Your task to perform on an android device: What's the weather today? Image 0: 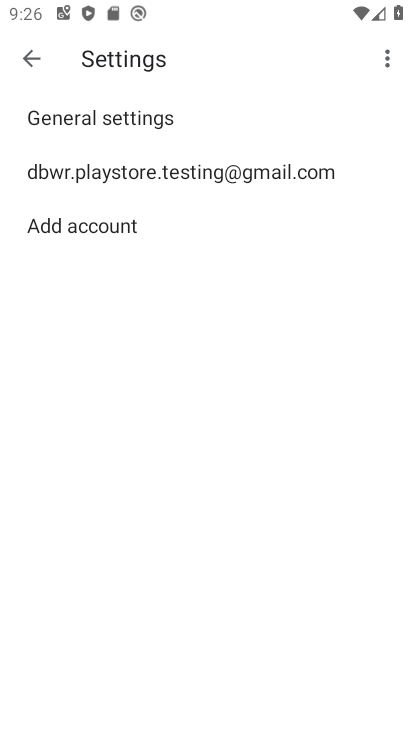
Step 0: press home button
Your task to perform on an android device: What's the weather today? Image 1: 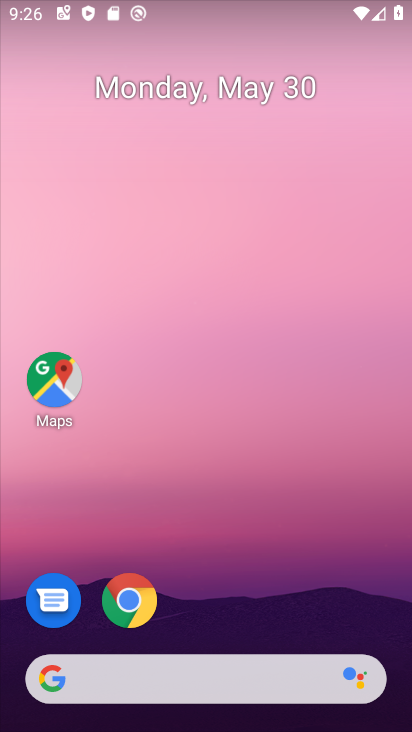
Step 1: click (56, 681)
Your task to perform on an android device: What's the weather today? Image 2: 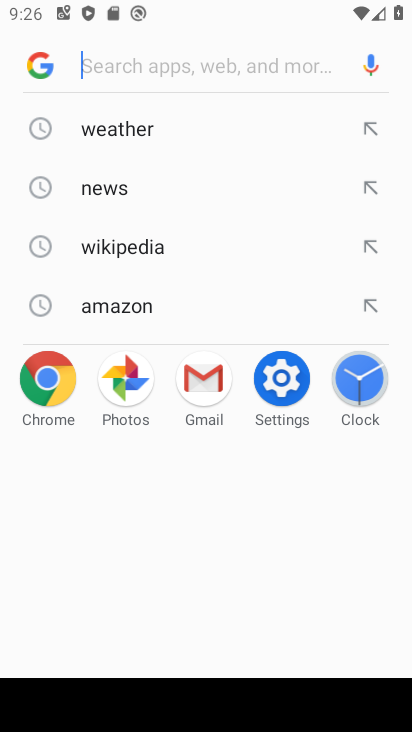
Step 2: type "weather today?"
Your task to perform on an android device: What's the weather today? Image 3: 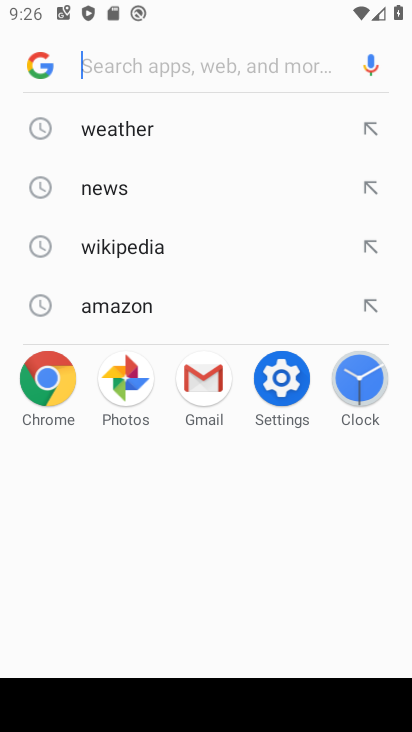
Step 3: click (146, 83)
Your task to perform on an android device: What's the weather today? Image 4: 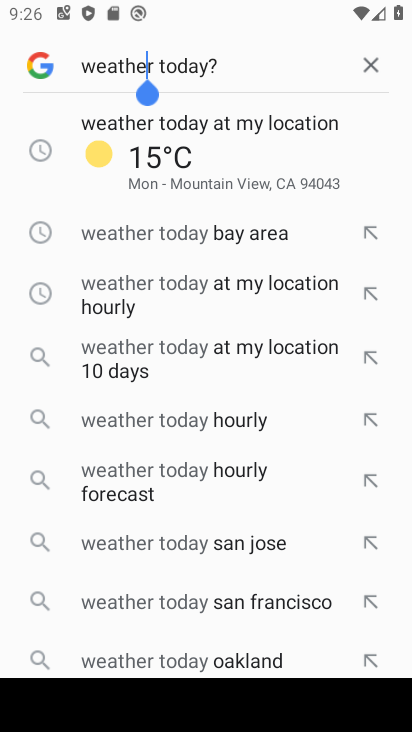
Step 4: click (203, 140)
Your task to perform on an android device: What's the weather today? Image 5: 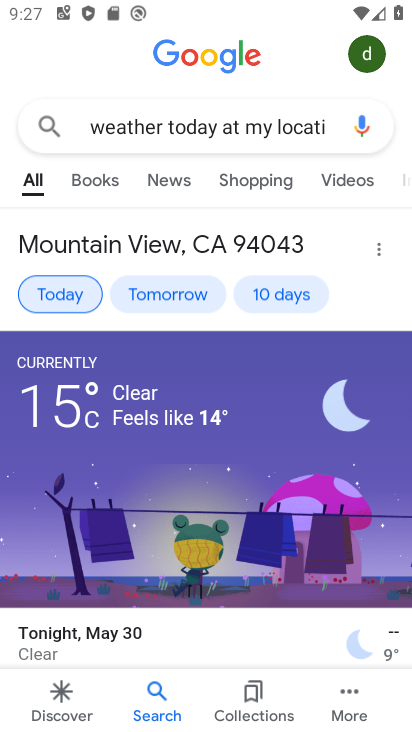
Step 5: task complete